Your task to perform on an android device: Open wifi settings Image 0: 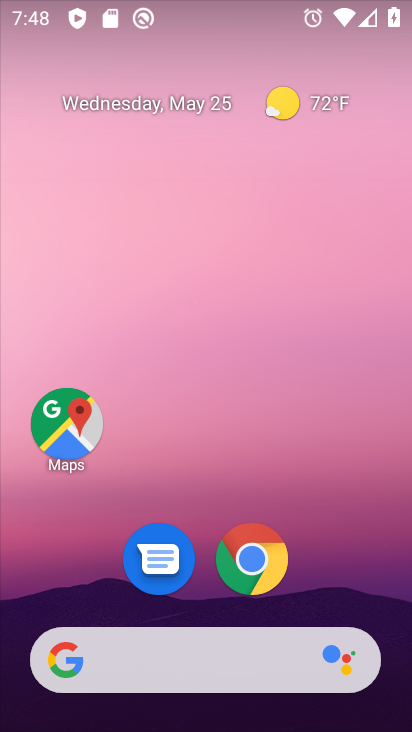
Step 0: drag from (271, 724) to (380, 8)
Your task to perform on an android device: Open wifi settings Image 1: 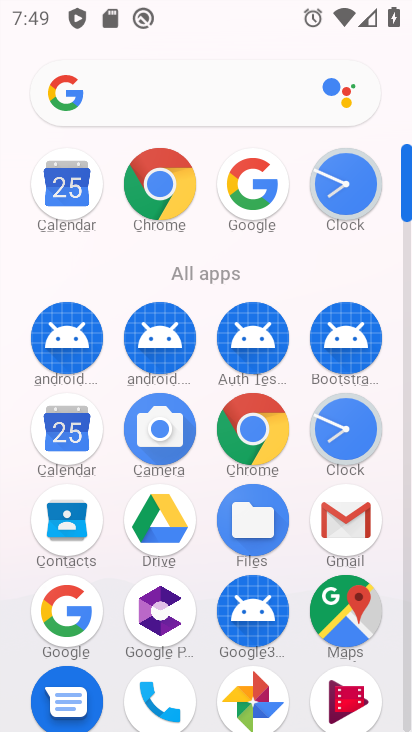
Step 1: drag from (164, 535) to (216, 114)
Your task to perform on an android device: Open wifi settings Image 2: 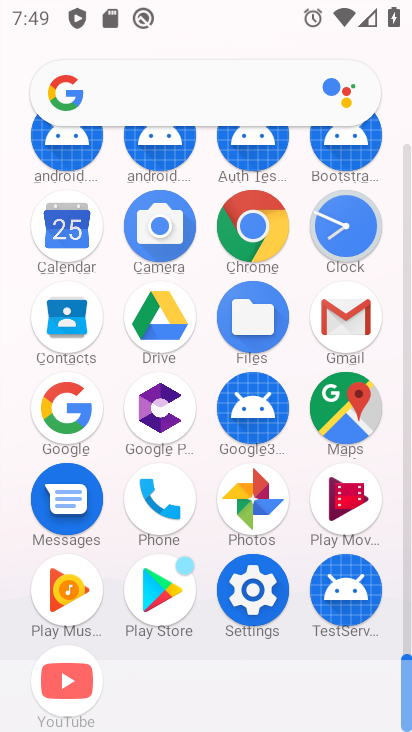
Step 2: click (253, 592)
Your task to perform on an android device: Open wifi settings Image 3: 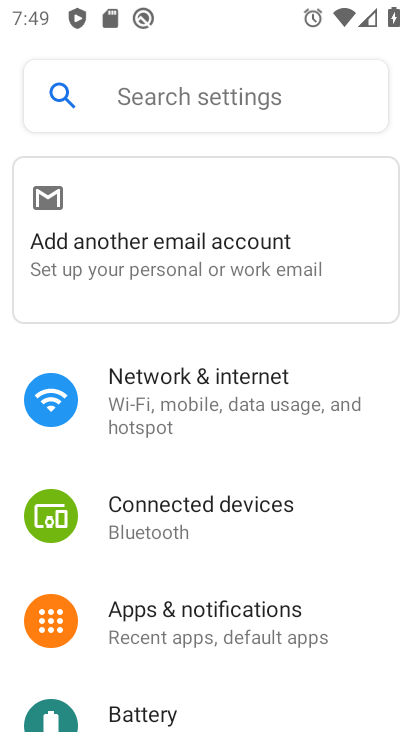
Step 3: click (208, 421)
Your task to perform on an android device: Open wifi settings Image 4: 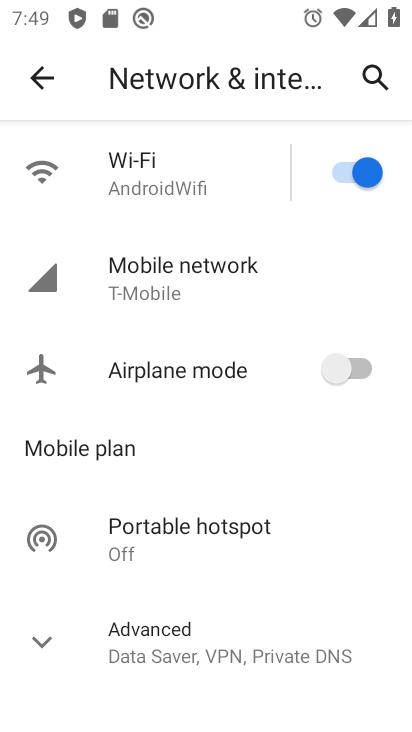
Step 4: click (189, 178)
Your task to perform on an android device: Open wifi settings Image 5: 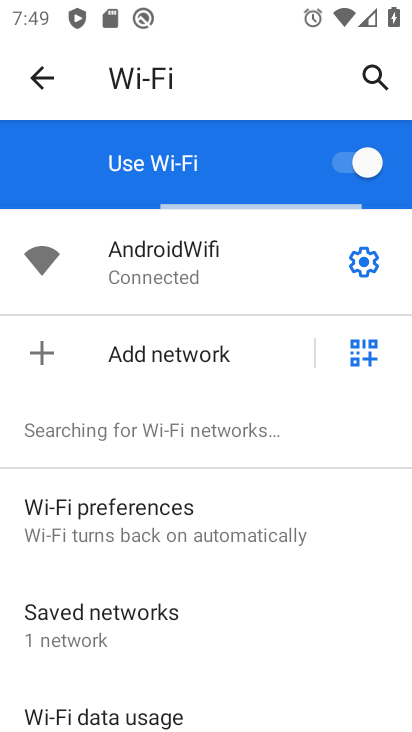
Step 5: task complete